Your task to perform on an android device: Open Maps and search for coffee Image 0: 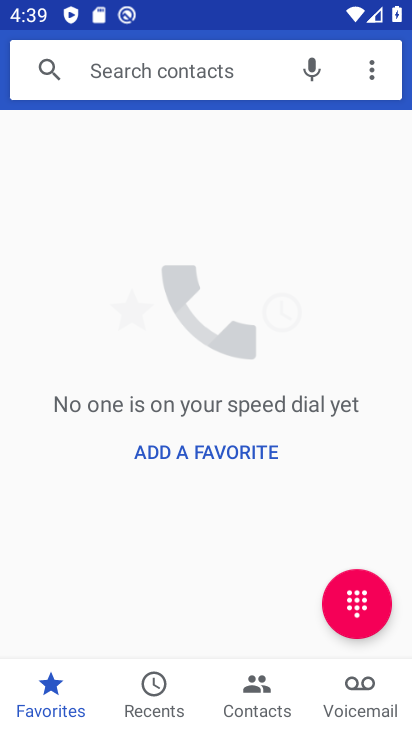
Step 0: press home button
Your task to perform on an android device: Open Maps and search for coffee Image 1: 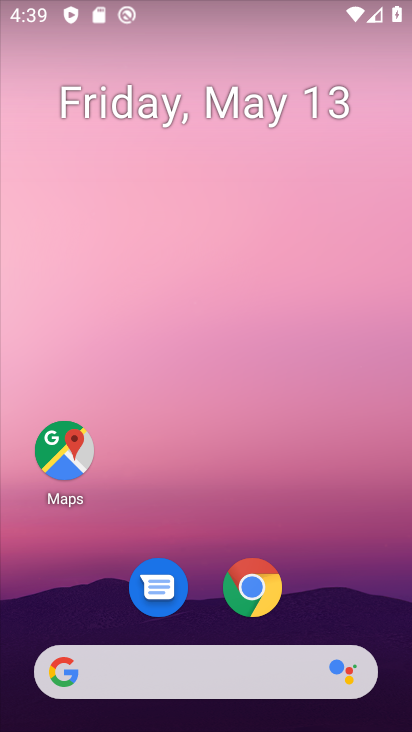
Step 1: click (73, 451)
Your task to perform on an android device: Open Maps and search for coffee Image 2: 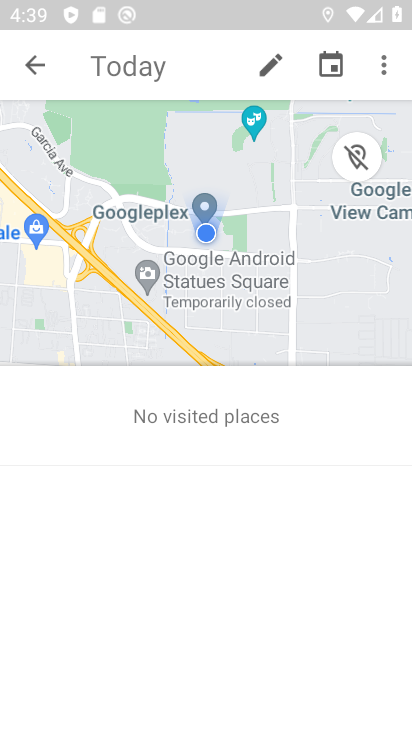
Step 2: click (379, 52)
Your task to perform on an android device: Open Maps and search for coffee Image 3: 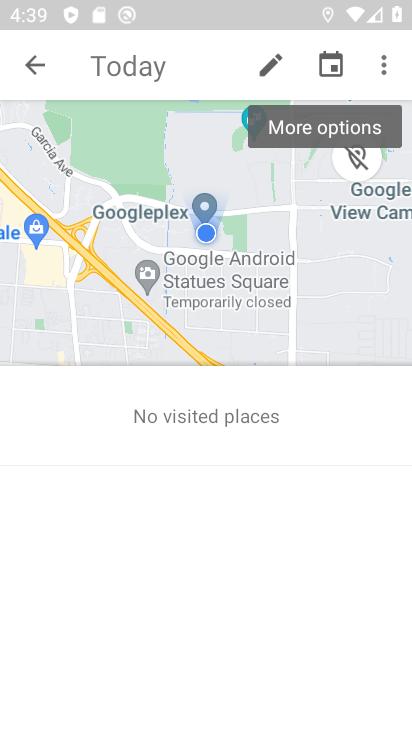
Step 3: click (47, 64)
Your task to perform on an android device: Open Maps and search for coffee Image 4: 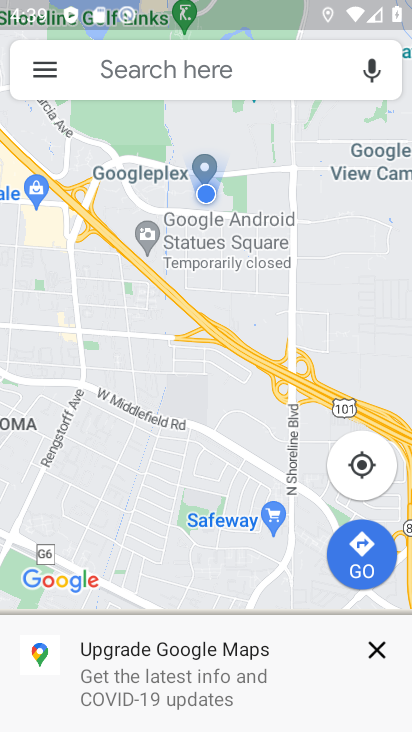
Step 4: click (47, 64)
Your task to perform on an android device: Open Maps and search for coffee Image 5: 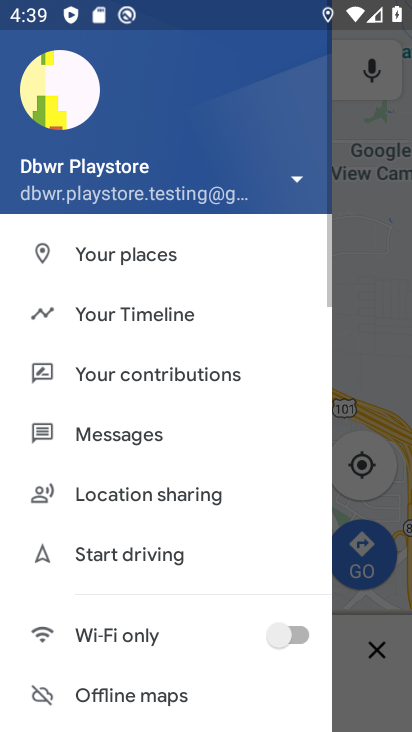
Step 5: click (341, 75)
Your task to perform on an android device: Open Maps and search for coffee Image 6: 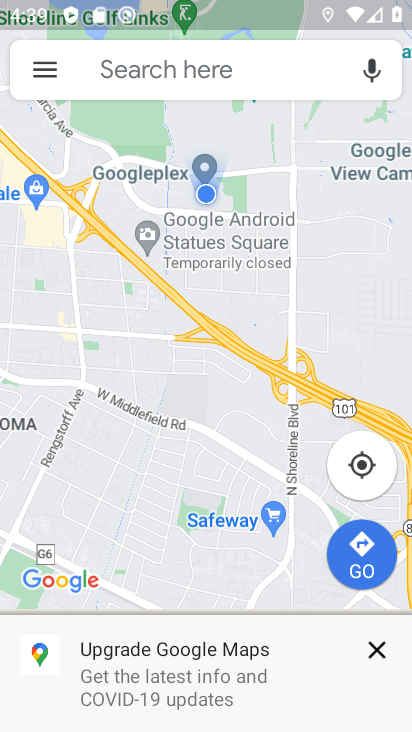
Step 6: click (175, 64)
Your task to perform on an android device: Open Maps and search for coffee Image 7: 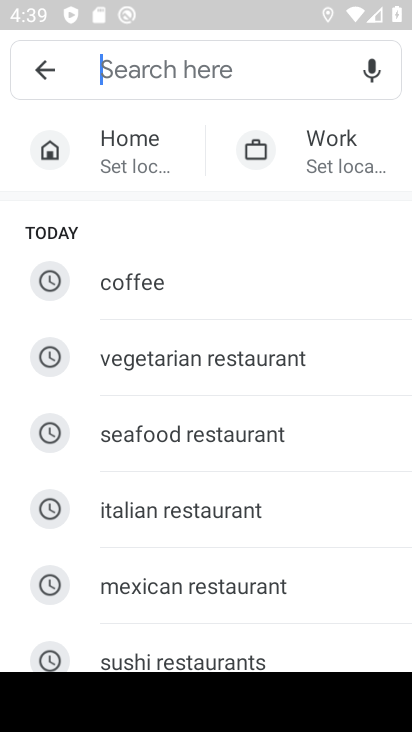
Step 7: type "coffee"
Your task to perform on an android device: Open Maps and search for coffee Image 8: 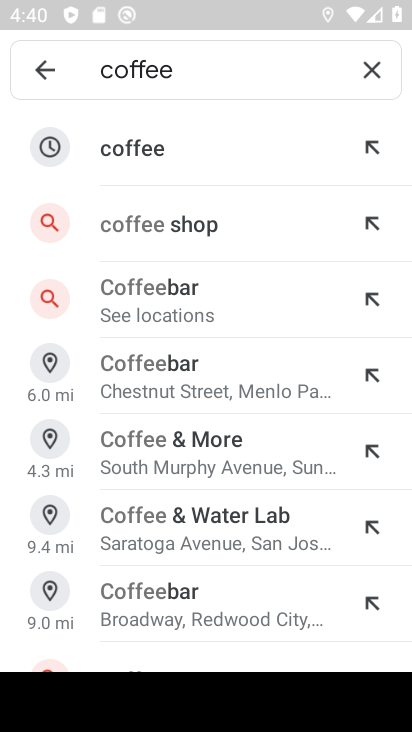
Step 8: click (108, 143)
Your task to perform on an android device: Open Maps and search for coffee Image 9: 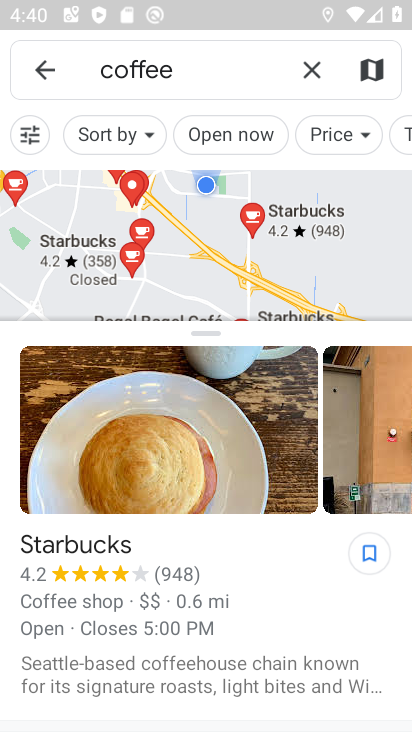
Step 9: task complete